Your task to perform on an android device: Go to battery settings Image 0: 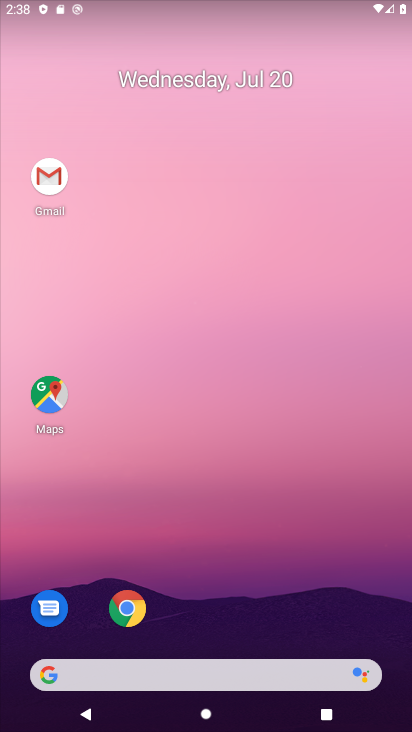
Step 0: drag from (210, 597) to (246, 80)
Your task to perform on an android device: Go to battery settings Image 1: 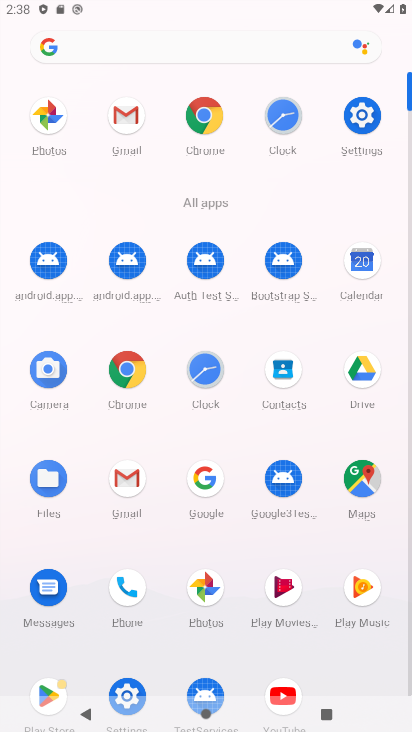
Step 1: click (362, 108)
Your task to perform on an android device: Go to battery settings Image 2: 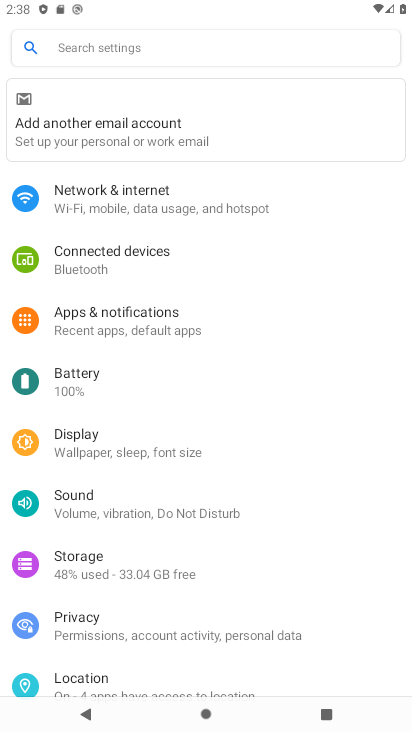
Step 2: click (144, 376)
Your task to perform on an android device: Go to battery settings Image 3: 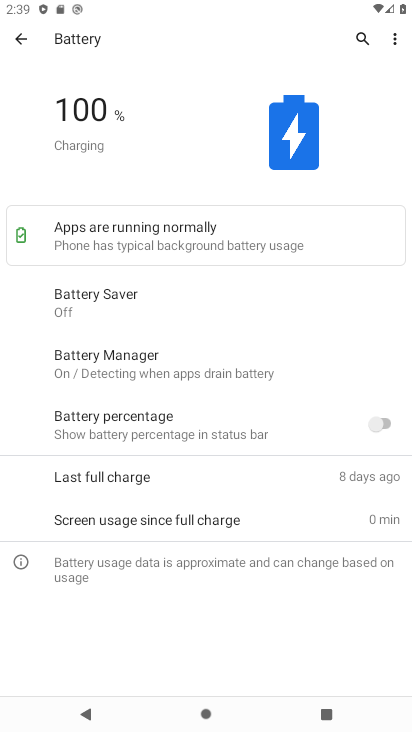
Step 3: task complete